Your task to perform on an android device: Go to settings Image 0: 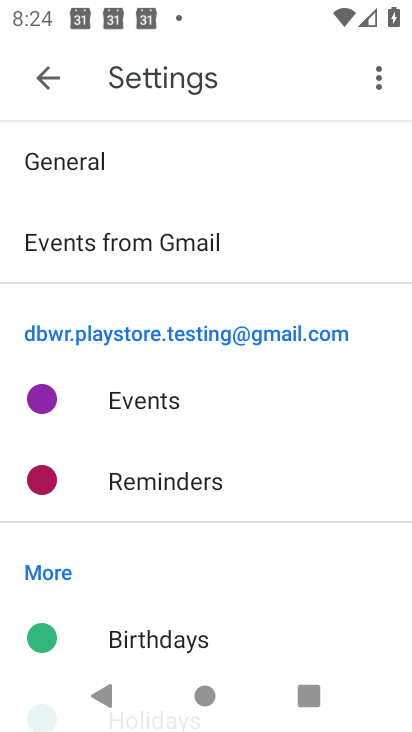
Step 0: press home button
Your task to perform on an android device: Go to settings Image 1: 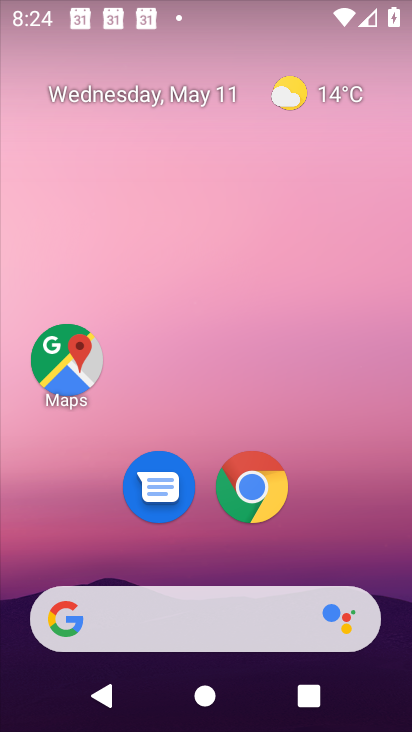
Step 1: drag from (219, 726) to (216, 109)
Your task to perform on an android device: Go to settings Image 2: 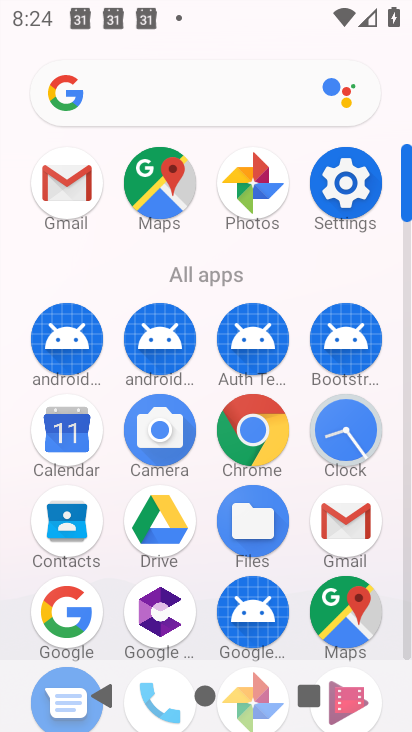
Step 2: click (342, 191)
Your task to perform on an android device: Go to settings Image 3: 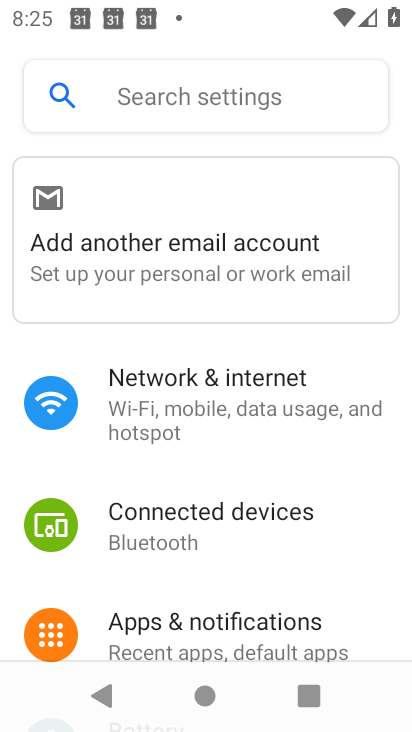
Step 3: task complete